Your task to perform on an android device: Clear the cart on ebay.com. Add "dell xps" to the cart on ebay.com Image 0: 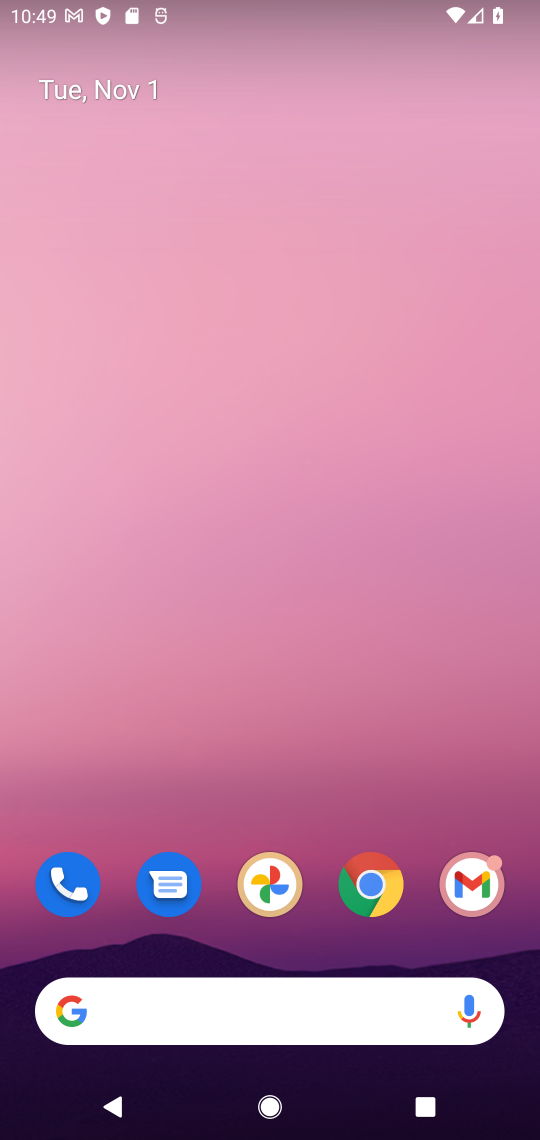
Step 0: click (379, 883)
Your task to perform on an android device: Clear the cart on ebay.com. Add "dell xps" to the cart on ebay.com Image 1: 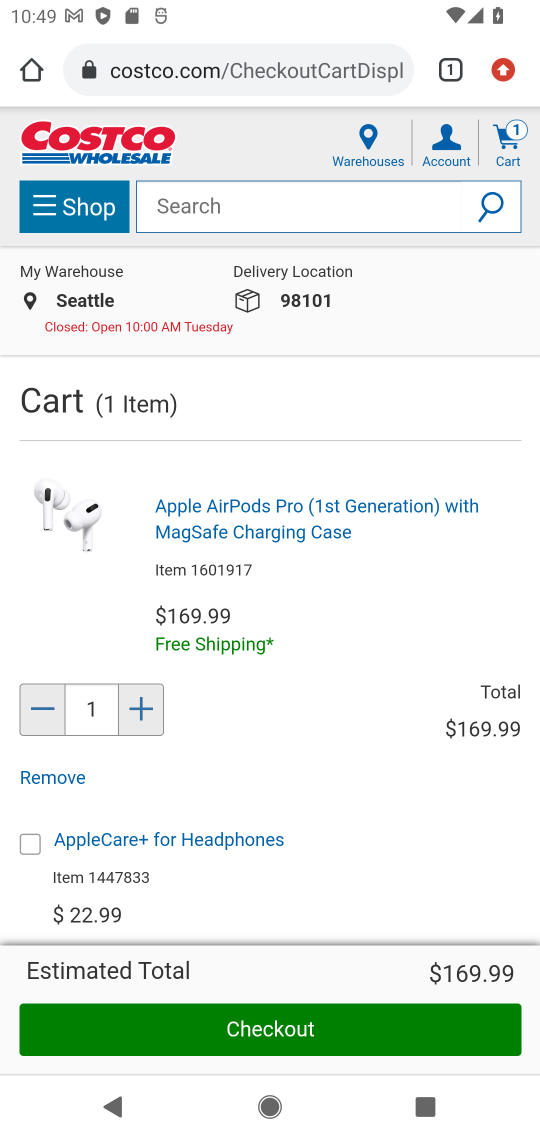
Step 1: click (192, 68)
Your task to perform on an android device: Clear the cart on ebay.com. Add "dell xps" to the cart on ebay.com Image 2: 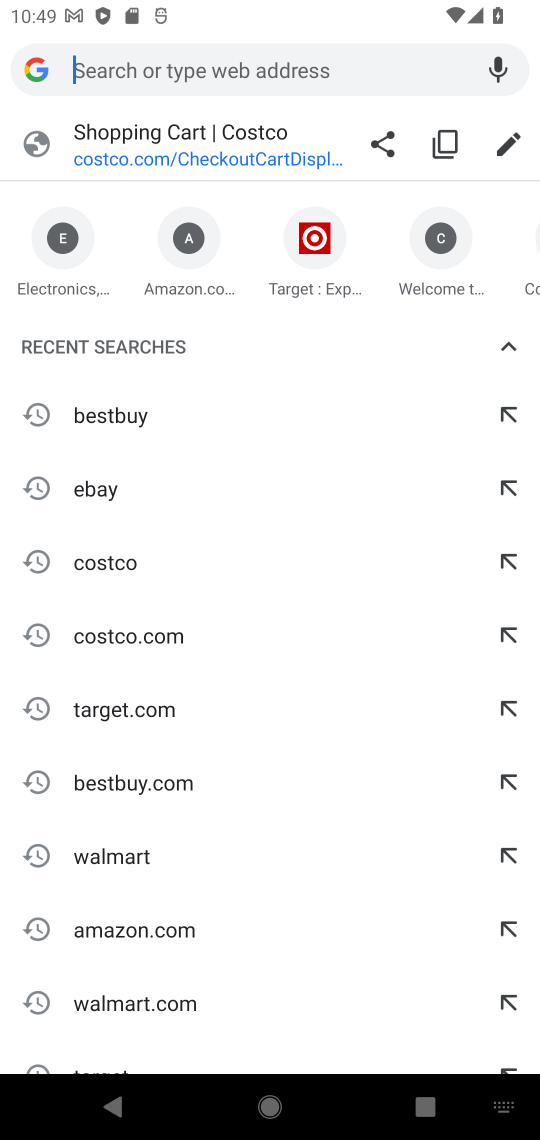
Step 2: type "ebay.com"
Your task to perform on an android device: Clear the cart on ebay.com. Add "dell xps" to the cart on ebay.com Image 3: 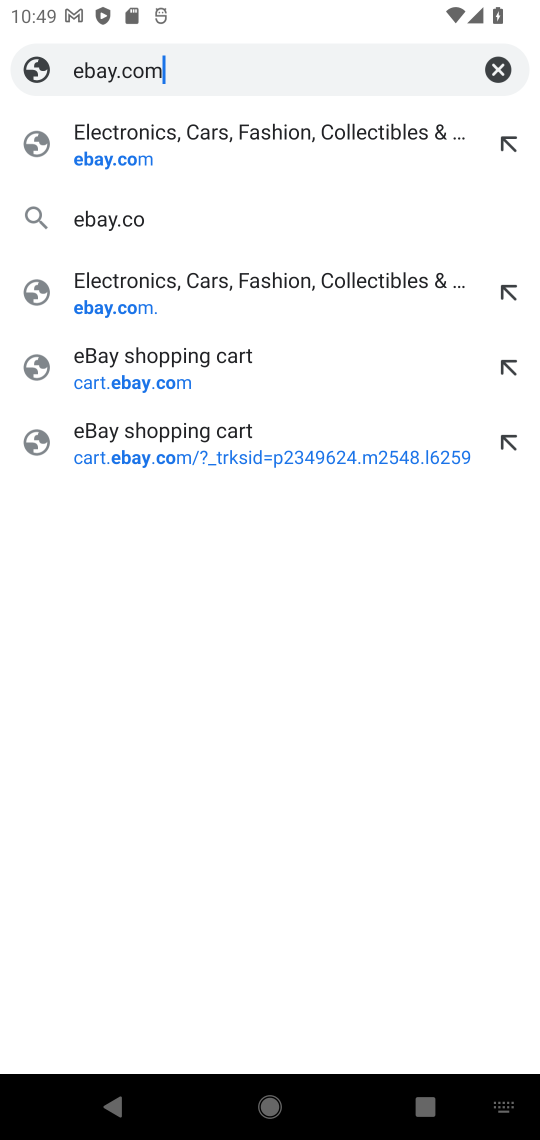
Step 3: type ""
Your task to perform on an android device: Clear the cart on ebay.com. Add "dell xps" to the cart on ebay.com Image 4: 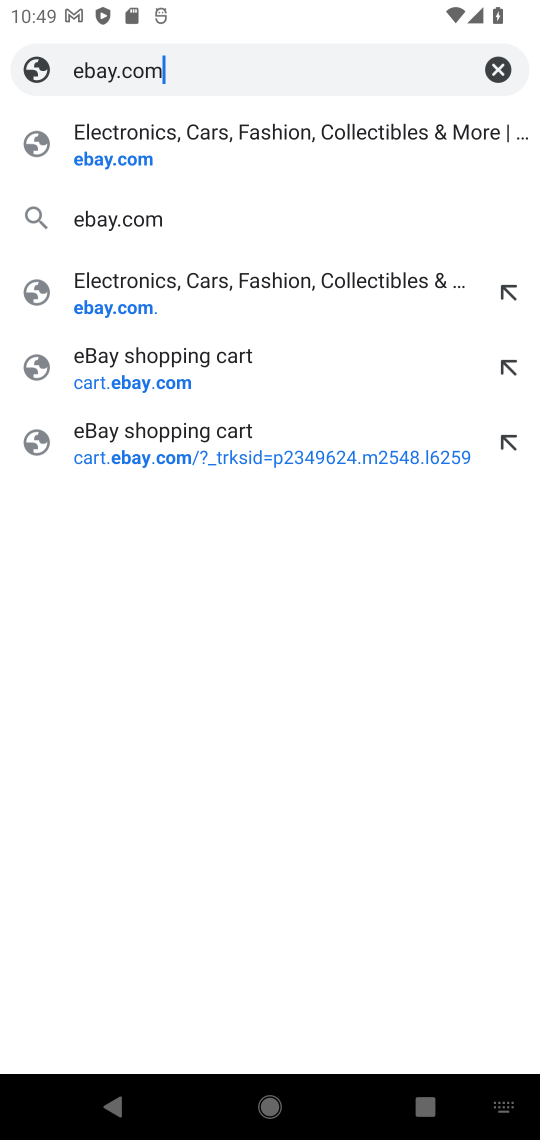
Step 4: press enter
Your task to perform on an android device: Clear the cart on ebay.com. Add "dell xps" to the cart on ebay.com Image 5: 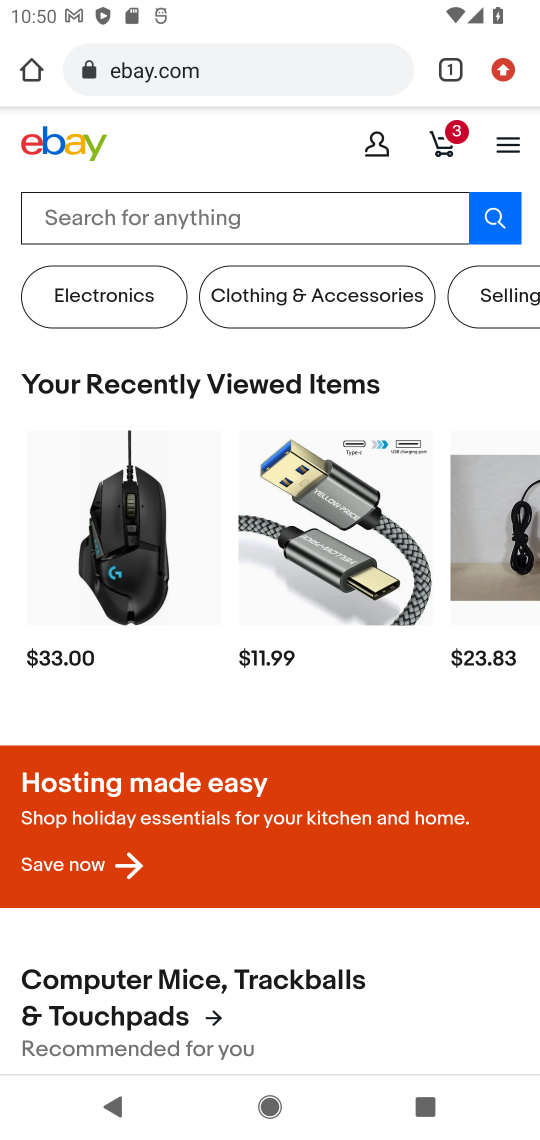
Step 5: click (449, 141)
Your task to perform on an android device: Clear the cart on ebay.com. Add "dell xps" to the cart on ebay.com Image 6: 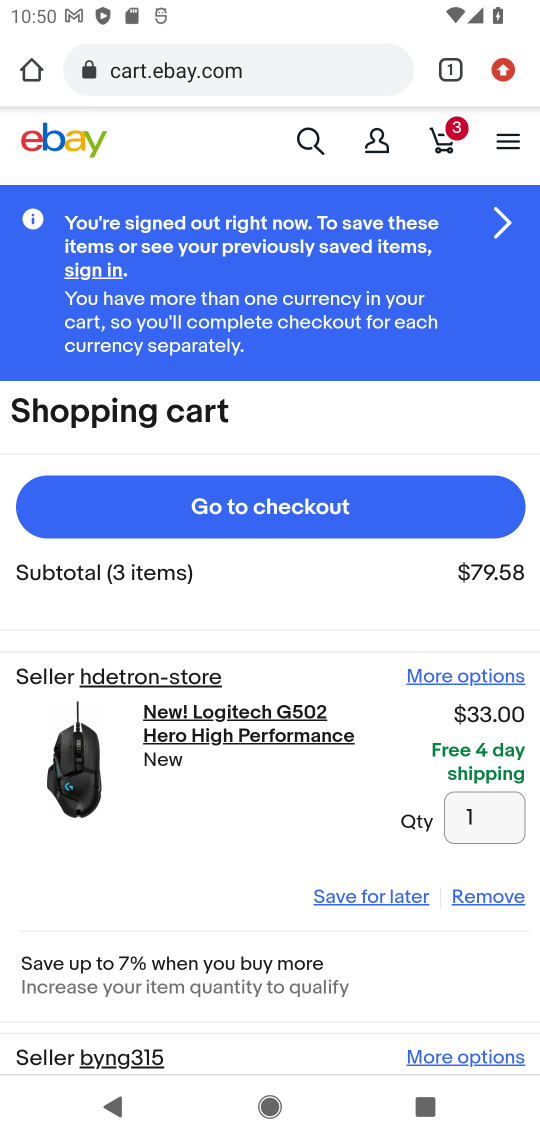
Step 6: click (497, 897)
Your task to perform on an android device: Clear the cart on ebay.com. Add "dell xps" to the cart on ebay.com Image 7: 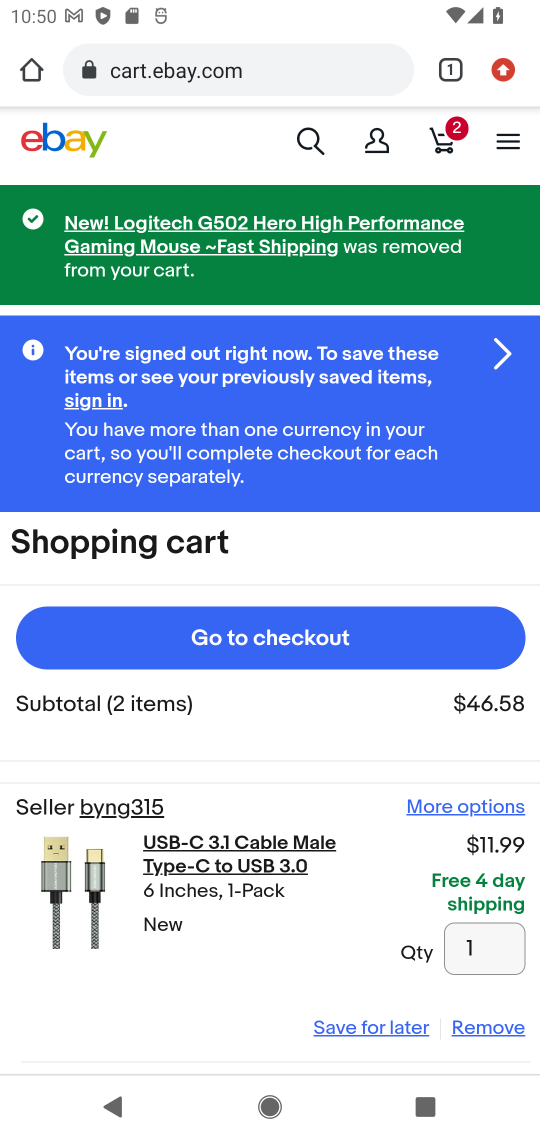
Step 7: click (478, 1020)
Your task to perform on an android device: Clear the cart on ebay.com. Add "dell xps" to the cart on ebay.com Image 8: 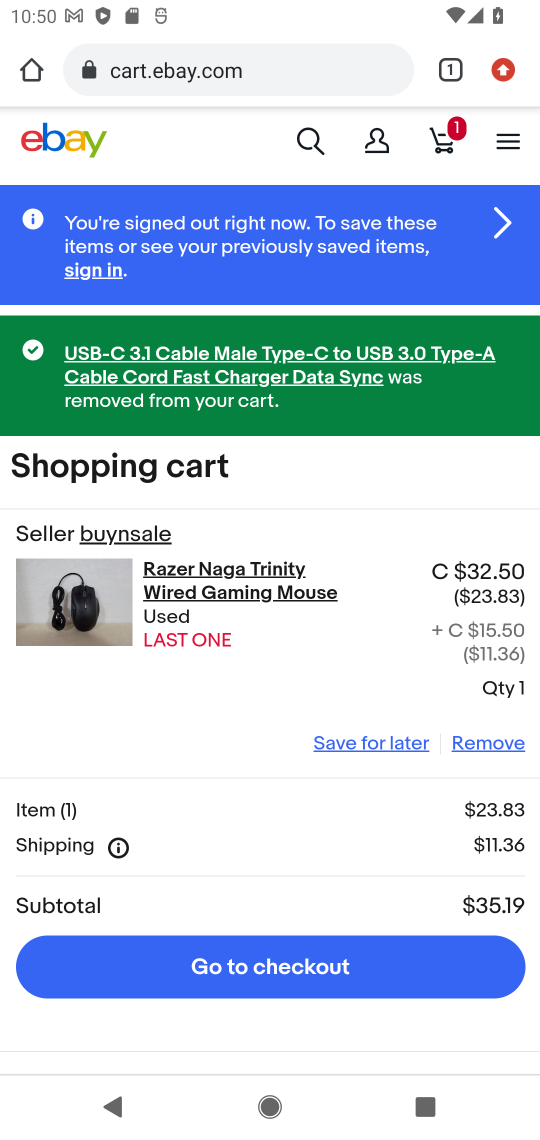
Step 8: click (489, 753)
Your task to perform on an android device: Clear the cart on ebay.com. Add "dell xps" to the cart on ebay.com Image 9: 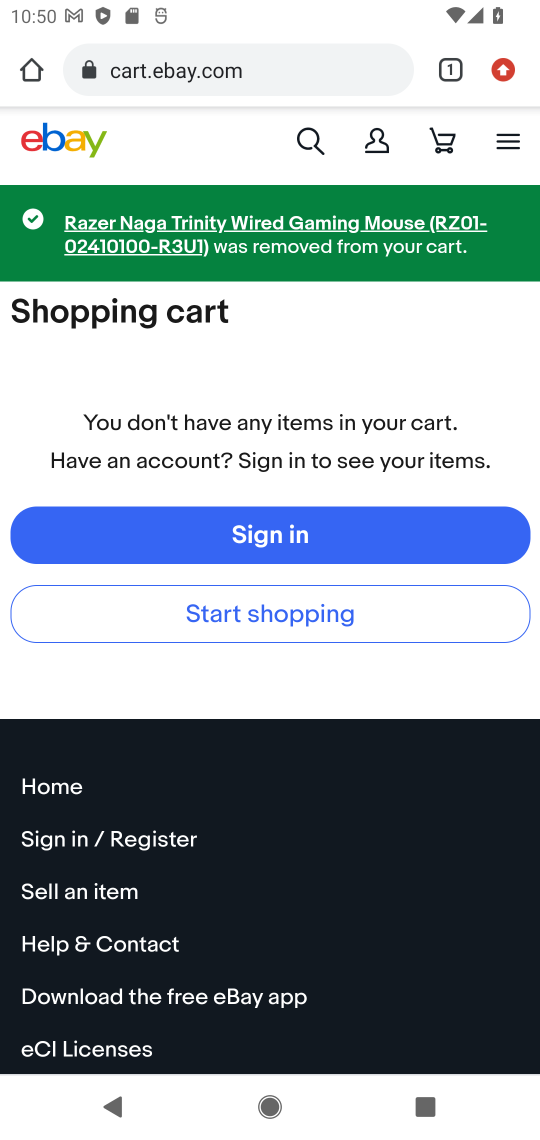
Step 9: click (311, 620)
Your task to perform on an android device: Clear the cart on ebay.com. Add "dell xps" to the cart on ebay.com Image 10: 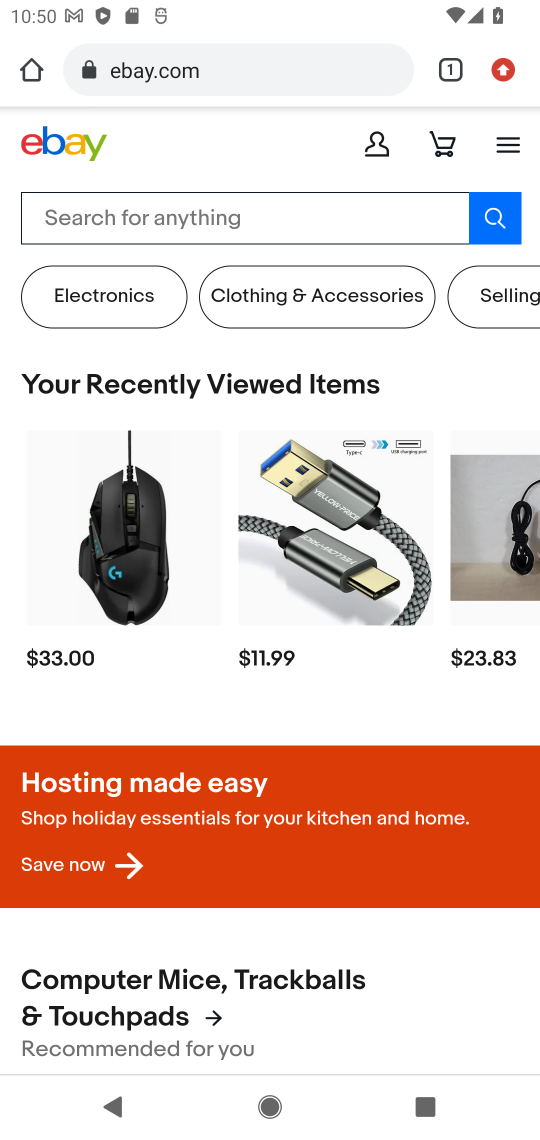
Step 10: click (233, 228)
Your task to perform on an android device: Clear the cart on ebay.com. Add "dell xps" to the cart on ebay.com Image 11: 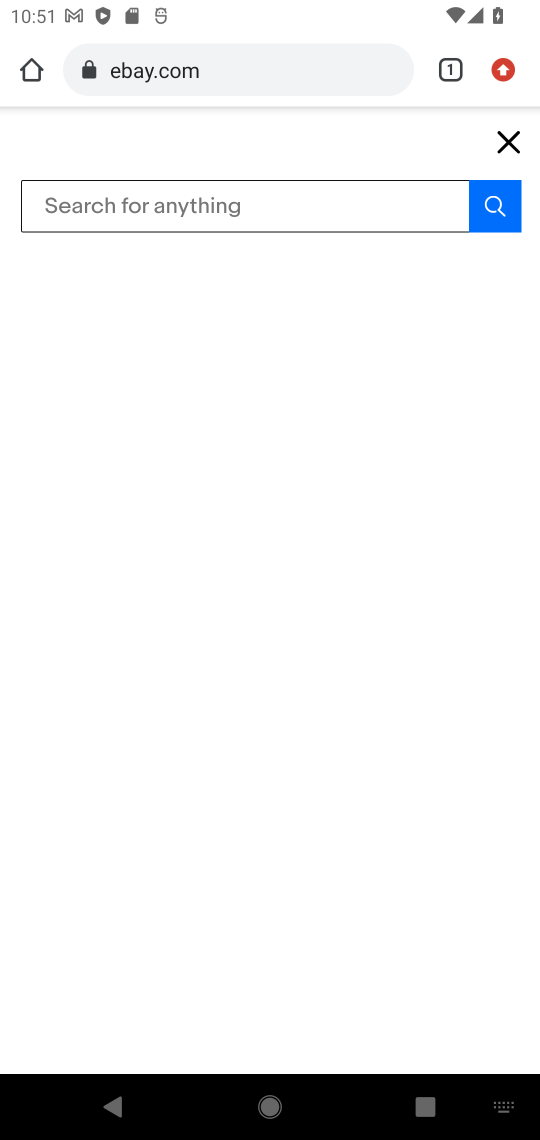
Step 11: type "dell xps"
Your task to perform on an android device: Clear the cart on ebay.com. Add "dell xps" to the cart on ebay.com Image 12: 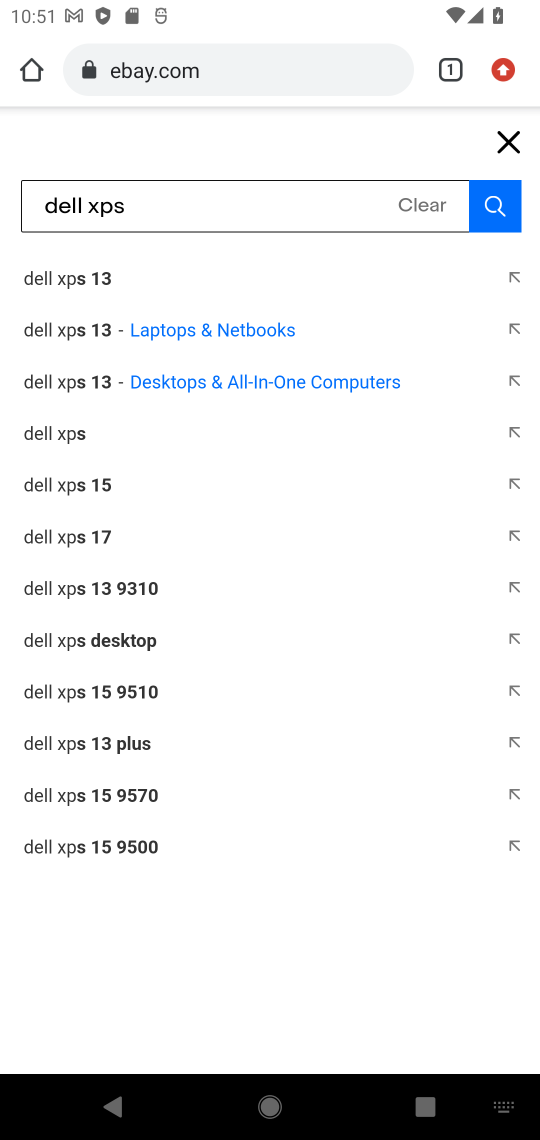
Step 12: click (498, 217)
Your task to perform on an android device: Clear the cart on ebay.com. Add "dell xps" to the cart on ebay.com Image 13: 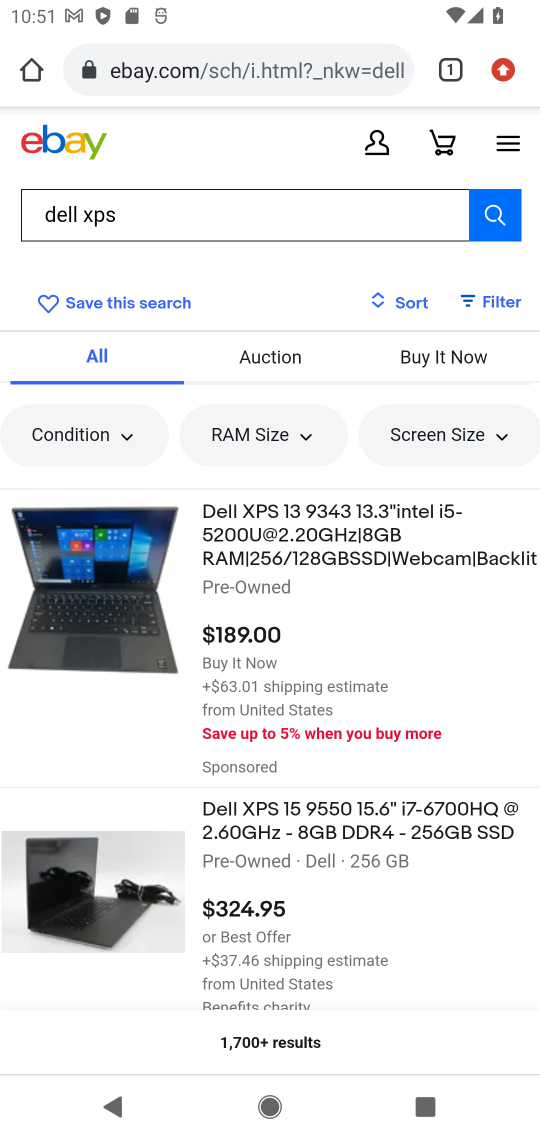
Step 13: click (310, 557)
Your task to perform on an android device: Clear the cart on ebay.com. Add "dell xps" to the cart on ebay.com Image 14: 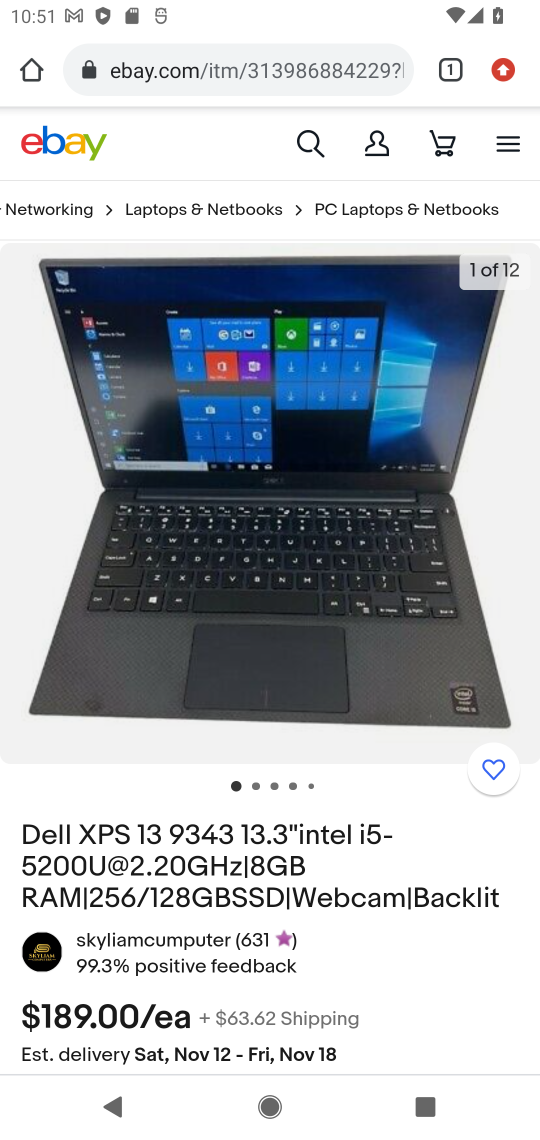
Step 14: drag from (286, 944) to (286, 357)
Your task to perform on an android device: Clear the cart on ebay.com. Add "dell xps" to the cart on ebay.com Image 15: 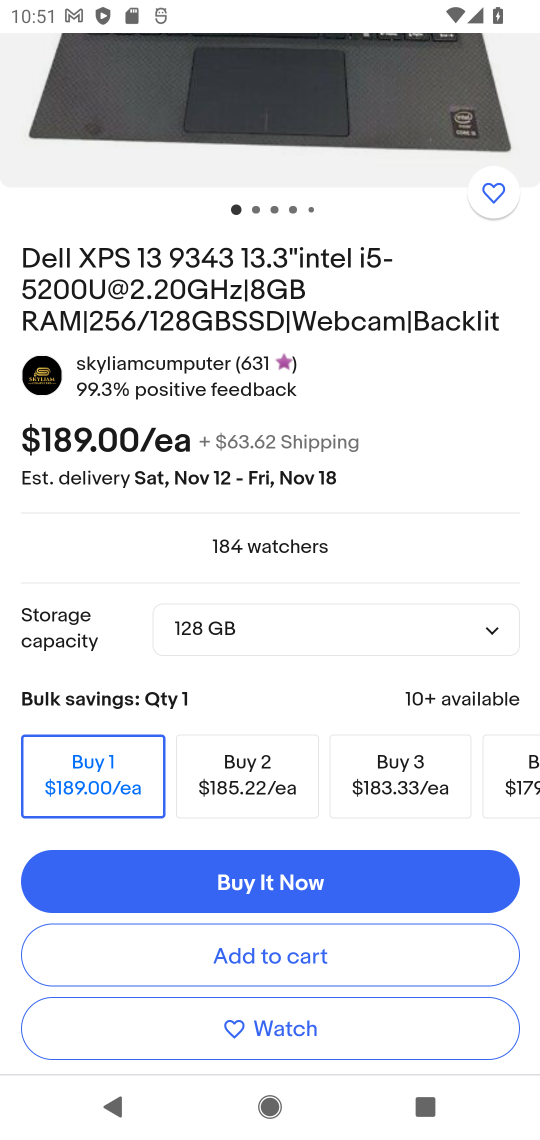
Step 15: click (276, 957)
Your task to perform on an android device: Clear the cart on ebay.com. Add "dell xps" to the cart on ebay.com Image 16: 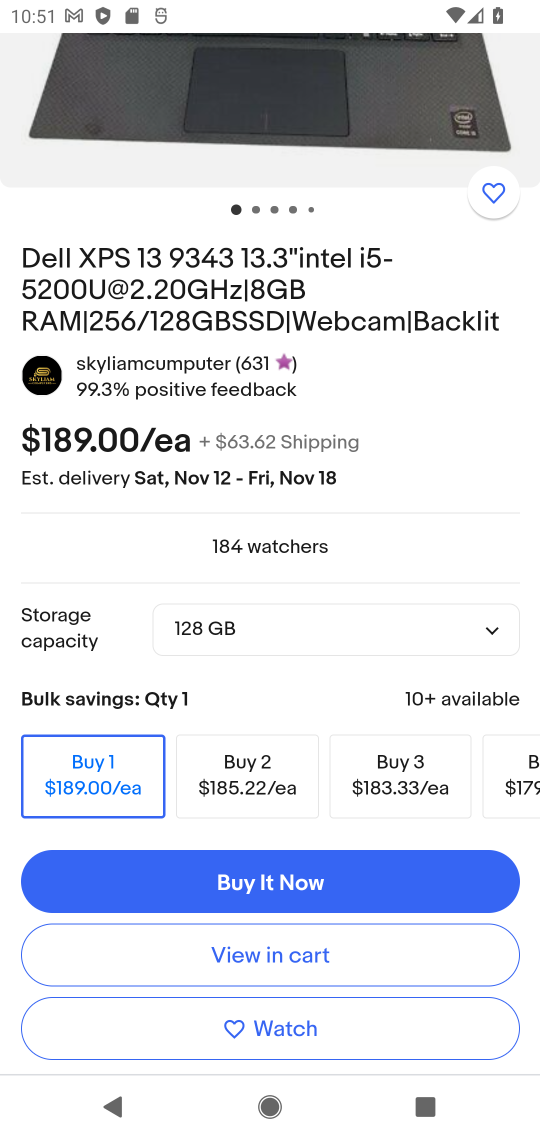
Step 16: click (289, 957)
Your task to perform on an android device: Clear the cart on ebay.com. Add "dell xps" to the cart on ebay.com Image 17: 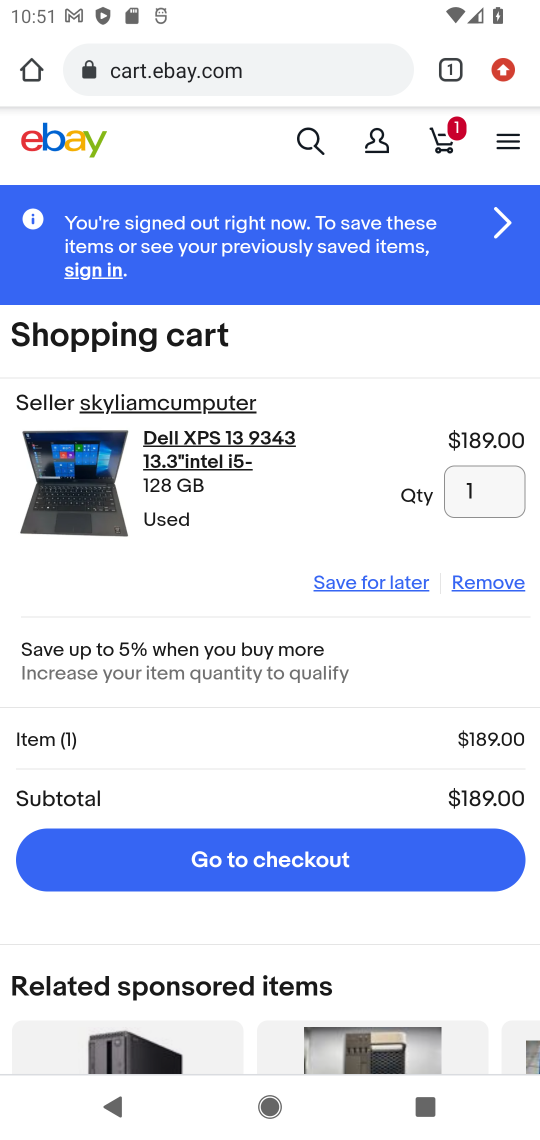
Step 17: click (284, 857)
Your task to perform on an android device: Clear the cart on ebay.com. Add "dell xps" to the cart on ebay.com Image 18: 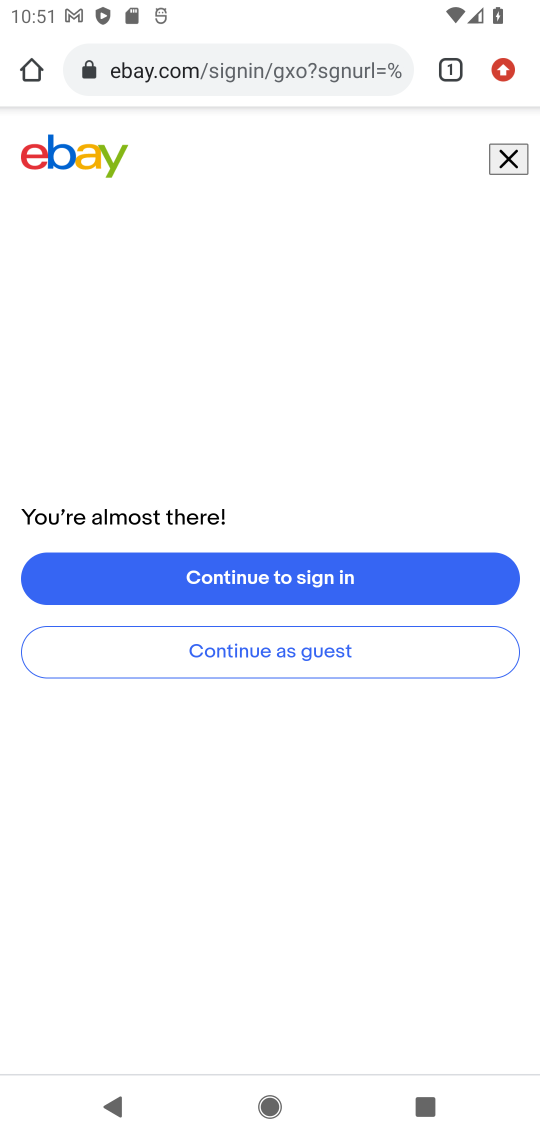
Step 18: task complete